Your task to perform on an android device: Open calendar and show me the second week of next month Image 0: 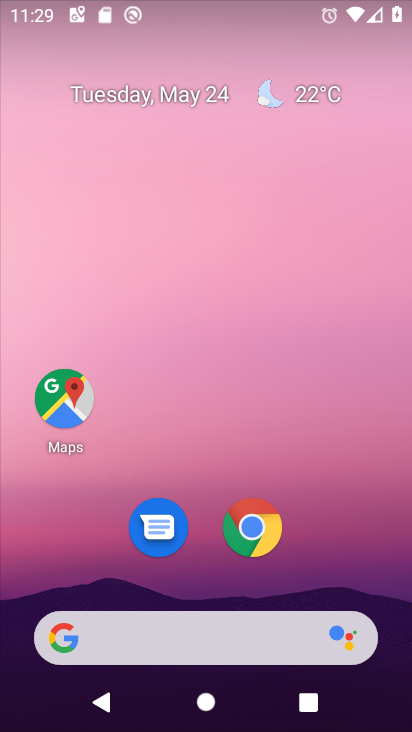
Step 0: press home button
Your task to perform on an android device: Open calendar and show me the second week of next month Image 1: 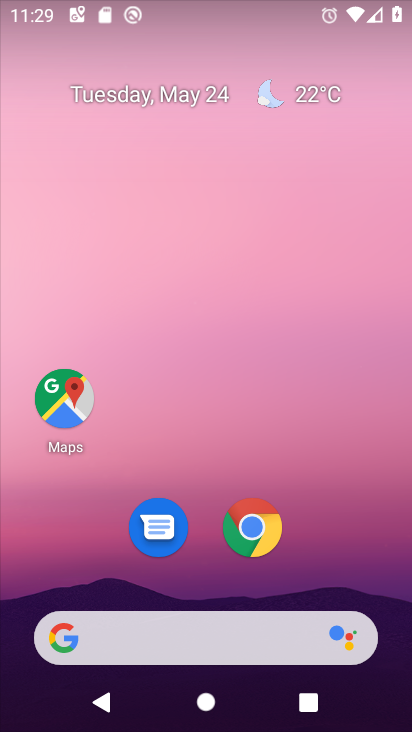
Step 1: drag from (202, 635) to (313, 48)
Your task to perform on an android device: Open calendar and show me the second week of next month Image 2: 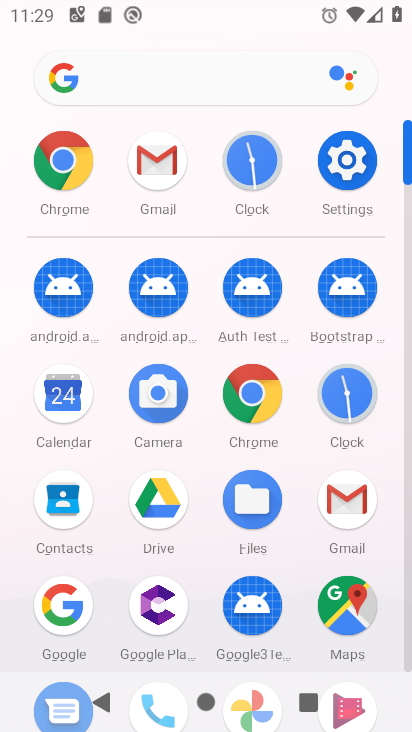
Step 2: click (75, 409)
Your task to perform on an android device: Open calendar and show me the second week of next month Image 3: 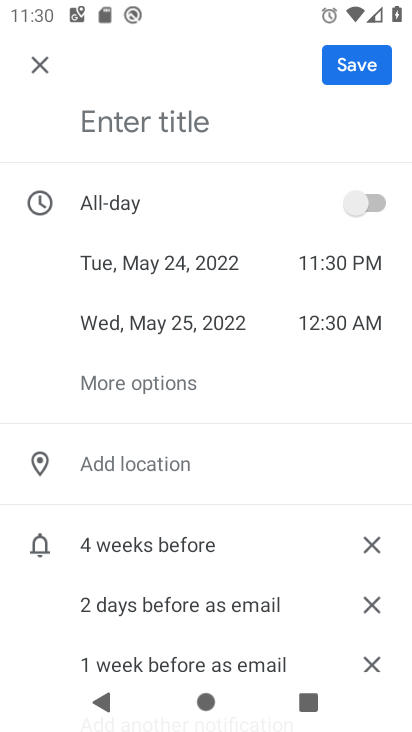
Step 3: click (41, 60)
Your task to perform on an android device: Open calendar and show me the second week of next month Image 4: 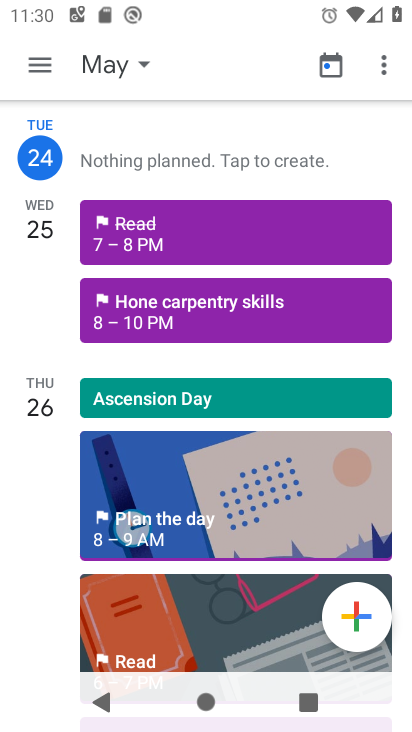
Step 4: click (111, 71)
Your task to perform on an android device: Open calendar and show me the second week of next month Image 5: 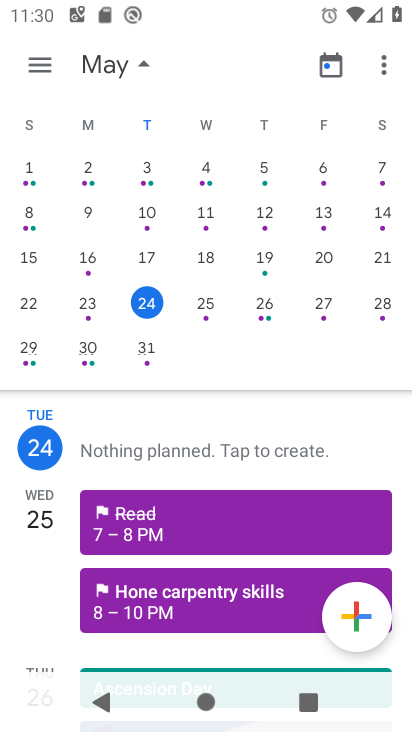
Step 5: drag from (351, 273) to (9, 149)
Your task to perform on an android device: Open calendar and show me the second week of next month Image 6: 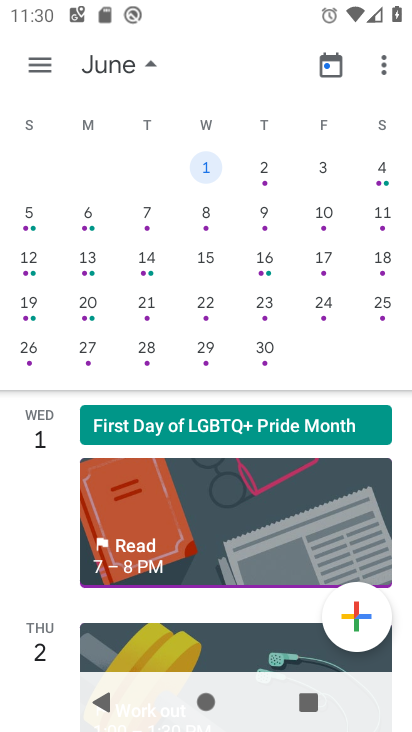
Step 6: click (23, 218)
Your task to perform on an android device: Open calendar and show me the second week of next month Image 7: 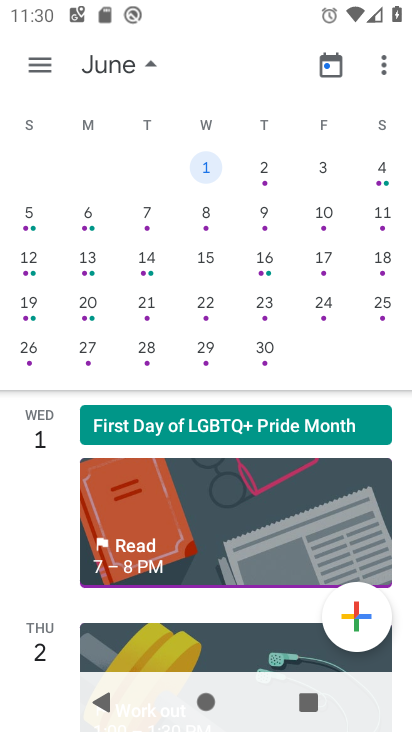
Step 7: click (36, 220)
Your task to perform on an android device: Open calendar and show me the second week of next month Image 8: 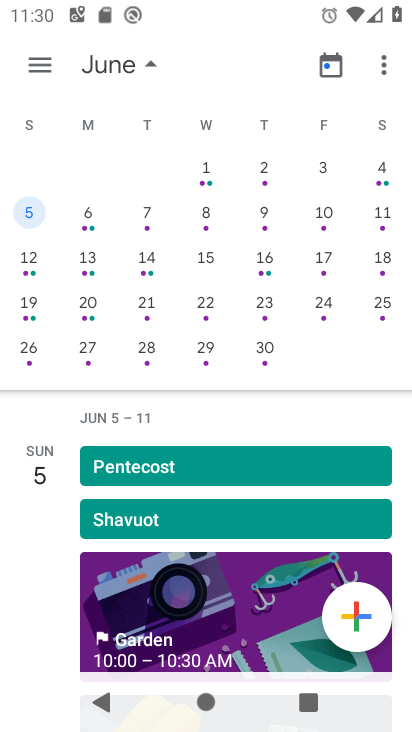
Step 8: click (47, 65)
Your task to perform on an android device: Open calendar and show me the second week of next month Image 9: 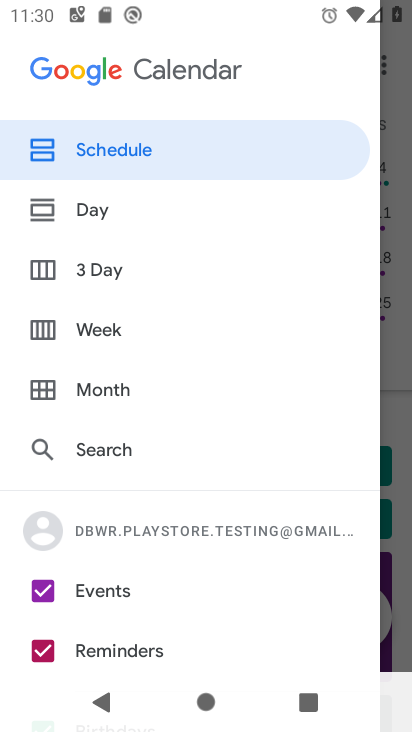
Step 9: click (103, 330)
Your task to perform on an android device: Open calendar and show me the second week of next month Image 10: 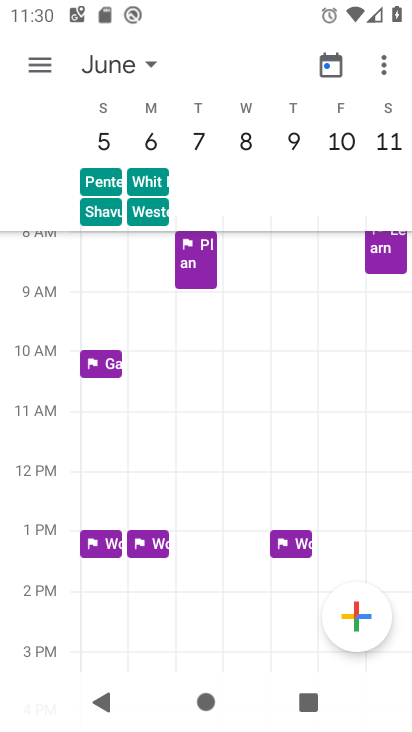
Step 10: task complete